Your task to perform on an android device: turn off smart reply in the gmail app Image 0: 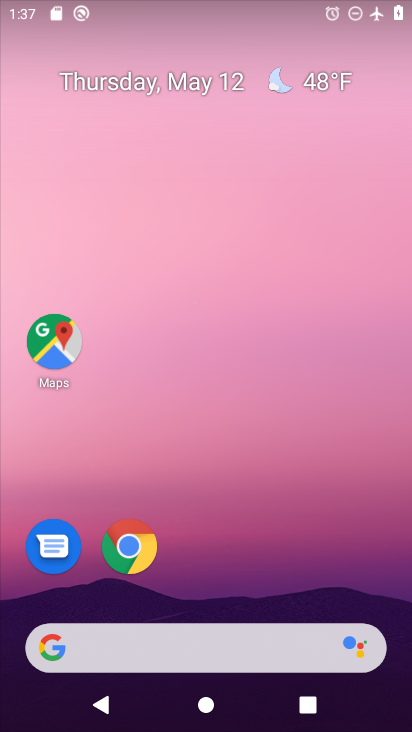
Step 0: press home button
Your task to perform on an android device: turn off smart reply in the gmail app Image 1: 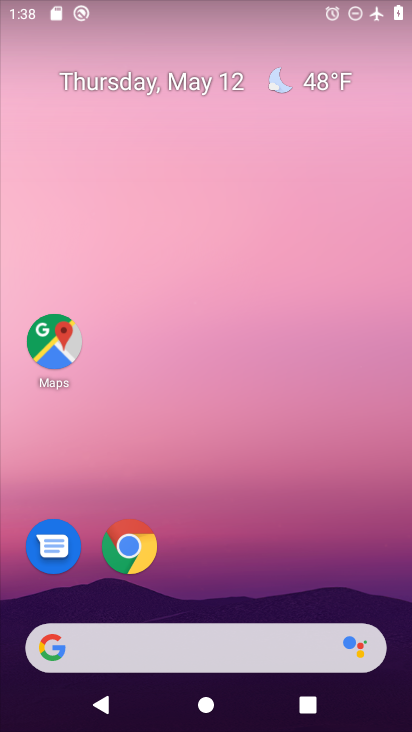
Step 1: drag from (201, 638) to (351, 173)
Your task to perform on an android device: turn off smart reply in the gmail app Image 2: 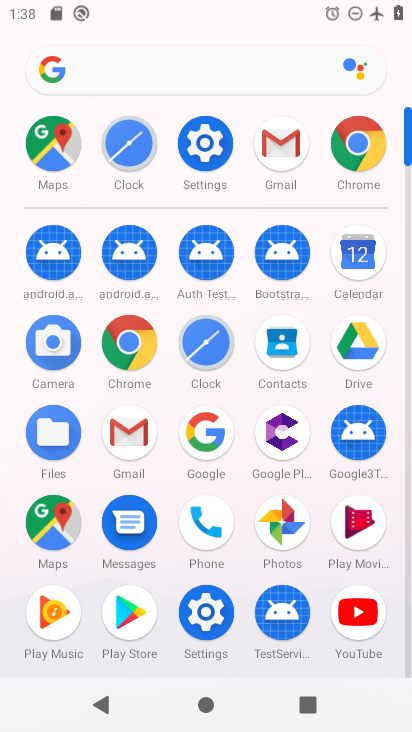
Step 2: click (281, 154)
Your task to perform on an android device: turn off smart reply in the gmail app Image 3: 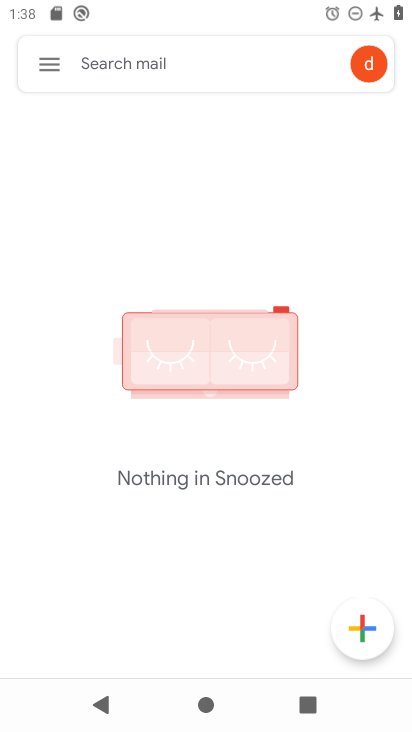
Step 3: click (52, 68)
Your task to perform on an android device: turn off smart reply in the gmail app Image 4: 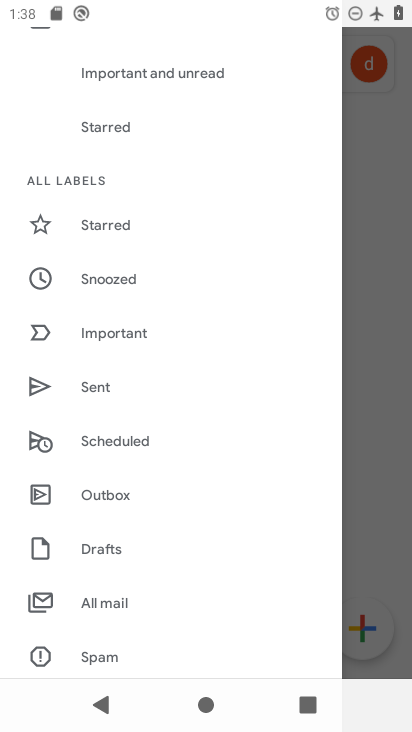
Step 4: drag from (160, 605) to (302, 145)
Your task to perform on an android device: turn off smart reply in the gmail app Image 5: 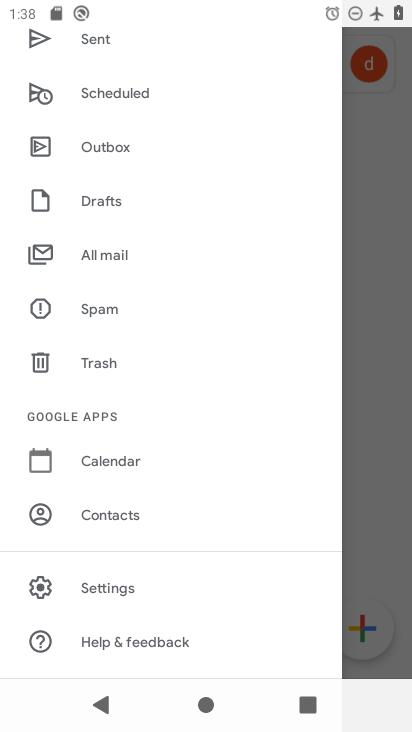
Step 5: click (120, 595)
Your task to perform on an android device: turn off smart reply in the gmail app Image 6: 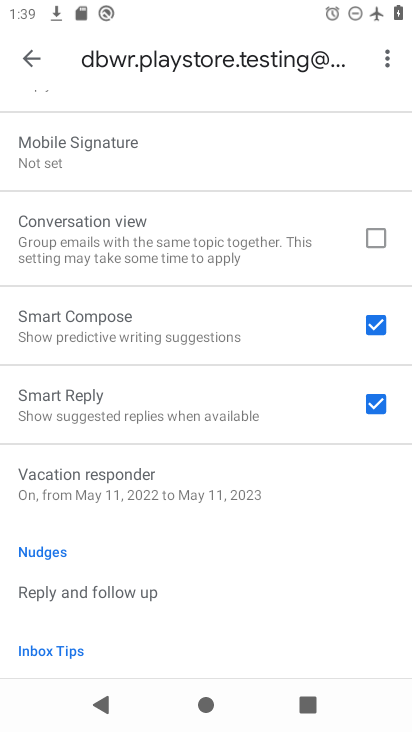
Step 6: task complete